Your task to perform on an android device: Open calendar and show me the second week of next month Image 0: 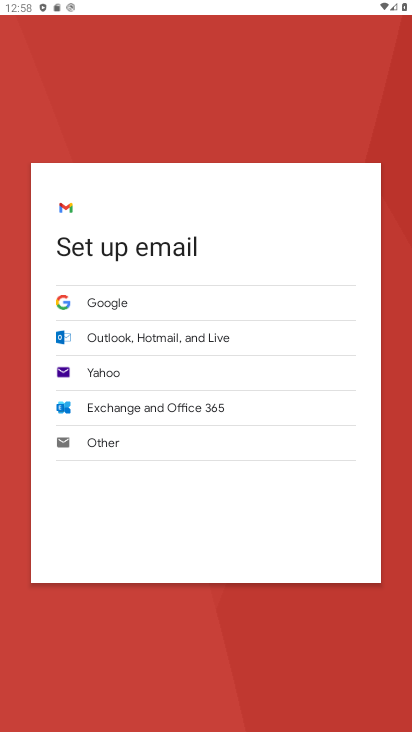
Step 0: press home button
Your task to perform on an android device: Open calendar and show me the second week of next month Image 1: 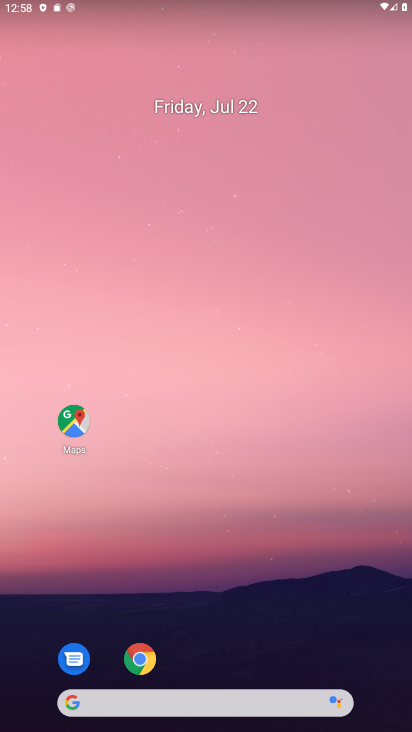
Step 1: drag from (224, 658) to (223, 132)
Your task to perform on an android device: Open calendar and show me the second week of next month Image 2: 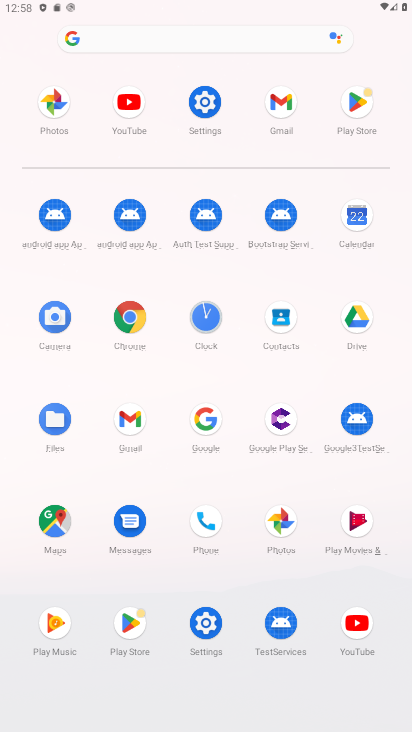
Step 2: click (340, 213)
Your task to perform on an android device: Open calendar and show me the second week of next month Image 3: 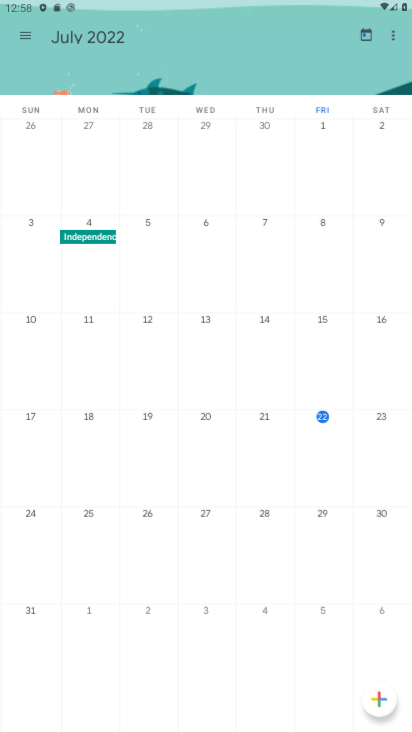
Step 3: task complete